Your task to perform on an android device: set the timer Image 0: 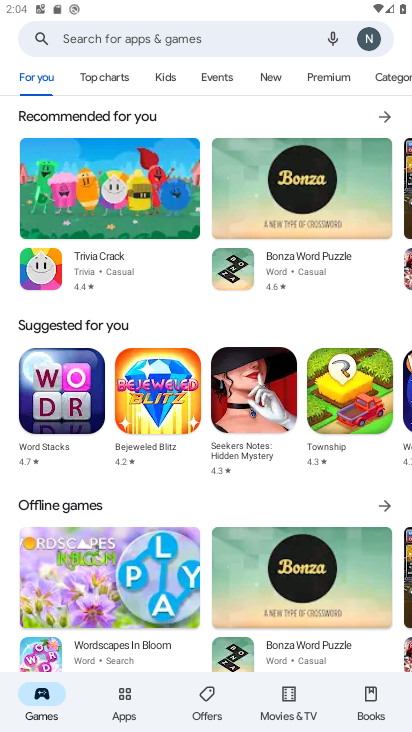
Step 0: press back button
Your task to perform on an android device: set the timer Image 1: 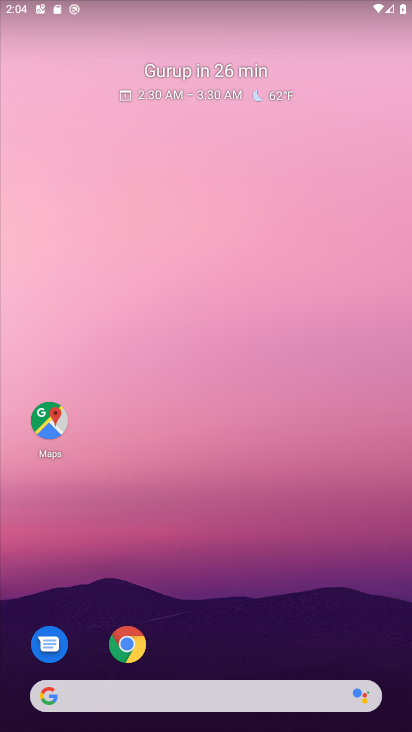
Step 1: drag from (238, 684) to (229, 216)
Your task to perform on an android device: set the timer Image 2: 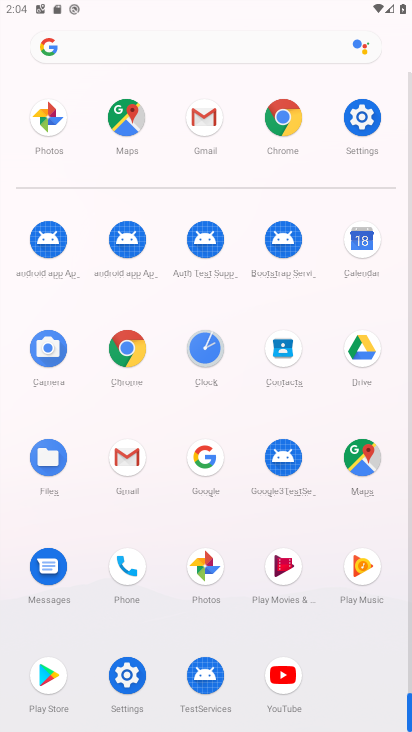
Step 2: click (204, 378)
Your task to perform on an android device: set the timer Image 3: 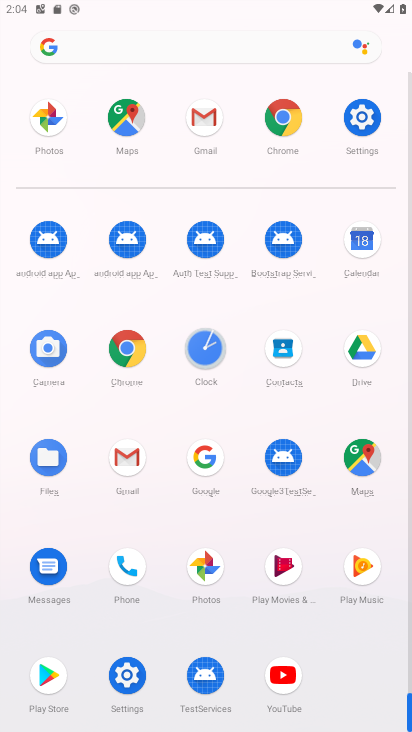
Step 3: click (199, 356)
Your task to perform on an android device: set the timer Image 4: 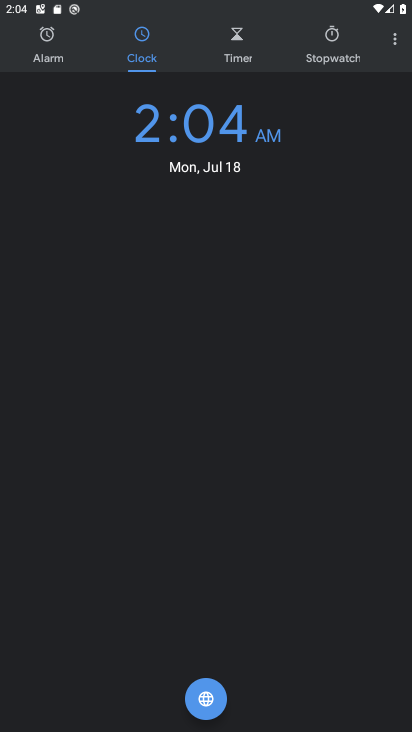
Step 4: click (231, 53)
Your task to perform on an android device: set the timer Image 5: 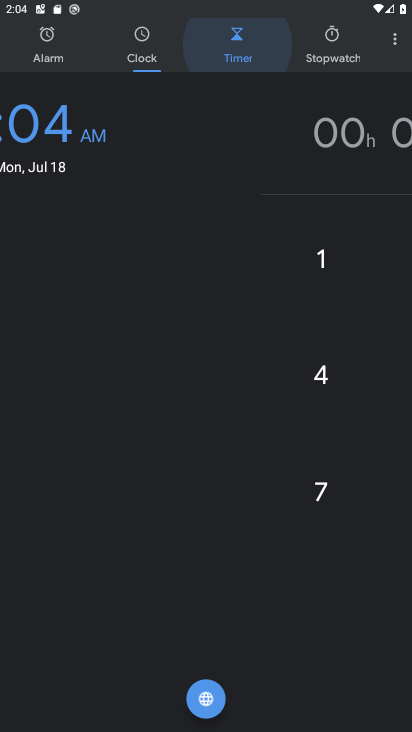
Step 5: click (233, 52)
Your task to perform on an android device: set the timer Image 6: 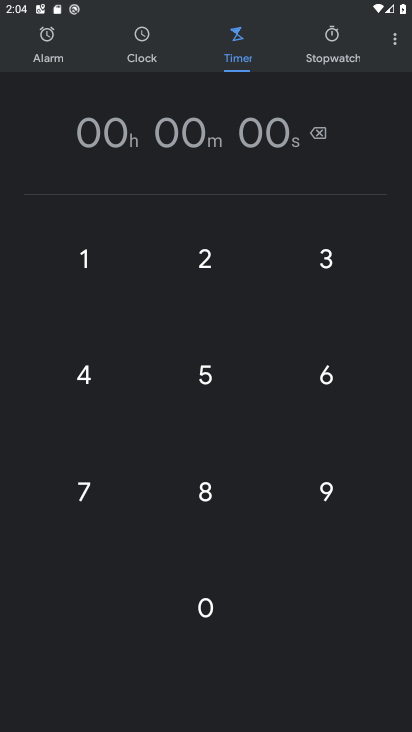
Step 6: click (234, 53)
Your task to perform on an android device: set the timer Image 7: 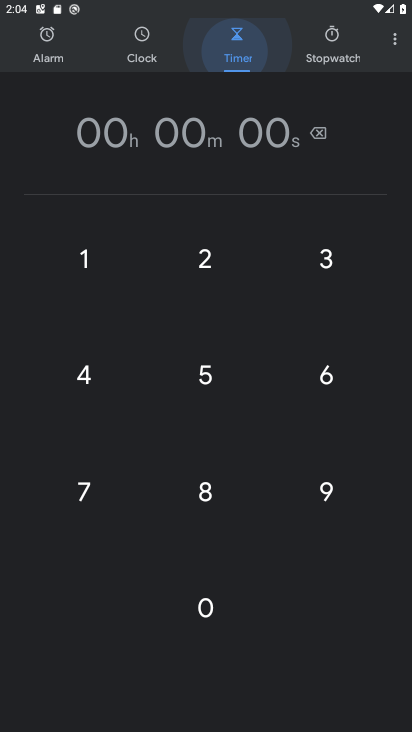
Step 7: click (235, 55)
Your task to perform on an android device: set the timer Image 8: 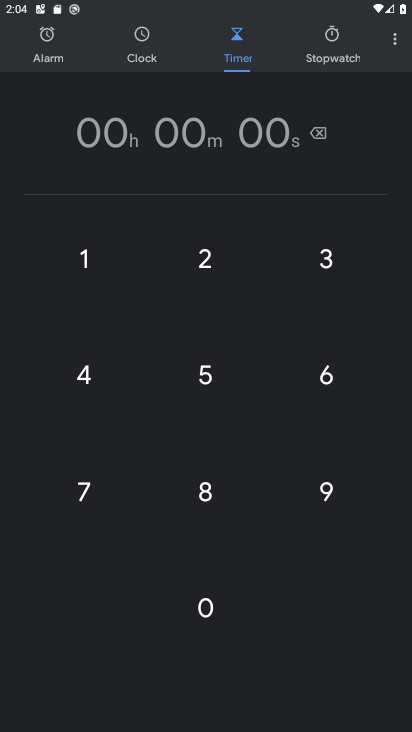
Step 8: click (209, 379)
Your task to perform on an android device: set the timer Image 9: 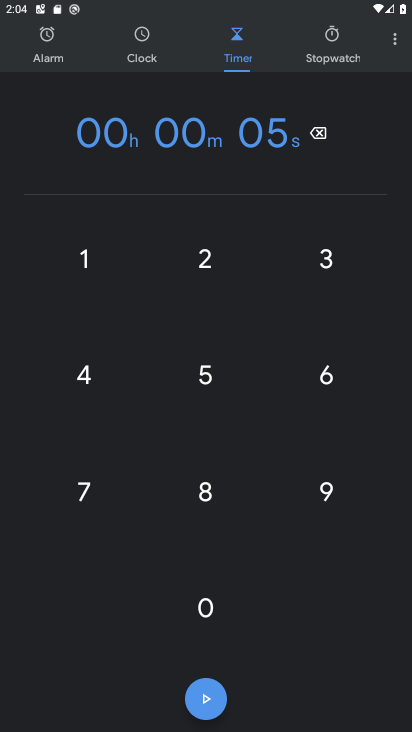
Step 9: click (205, 488)
Your task to perform on an android device: set the timer Image 10: 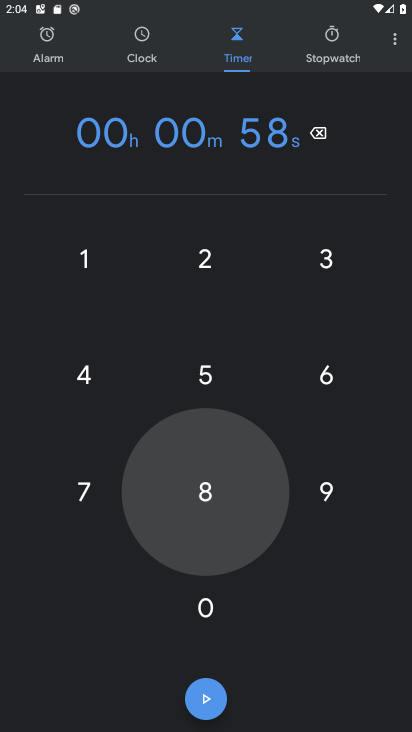
Step 10: click (203, 490)
Your task to perform on an android device: set the timer Image 11: 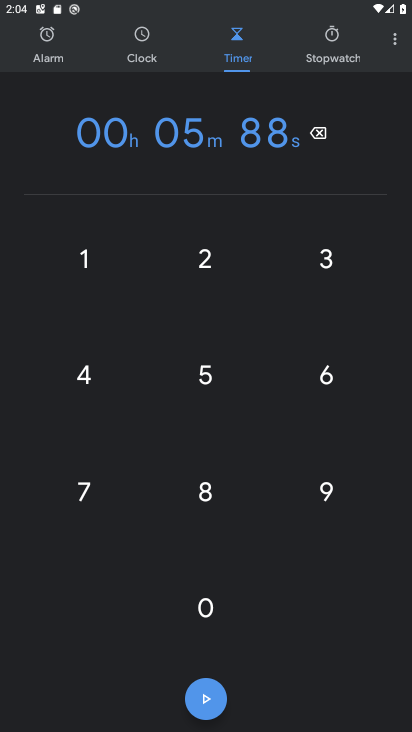
Step 11: click (201, 495)
Your task to perform on an android device: set the timer Image 12: 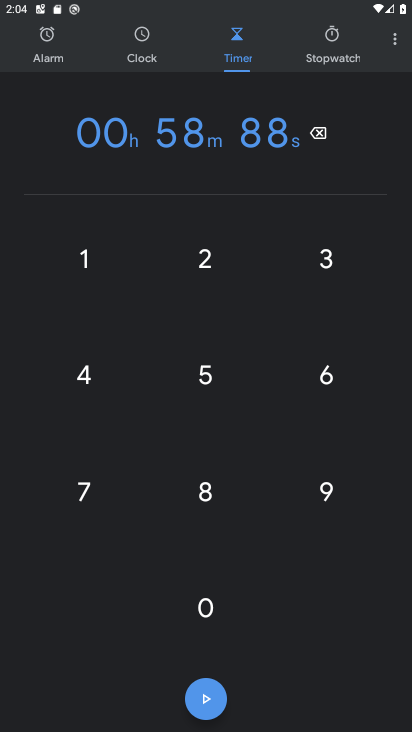
Step 12: click (206, 492)
Your task to perform on an android device: set the timer Image 13: 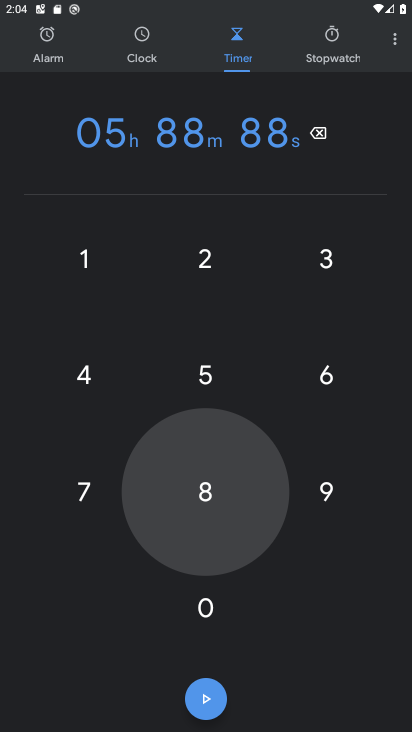
Step 13: click (207, 486)
Your task to perform on an android device: set the timer Image 14: 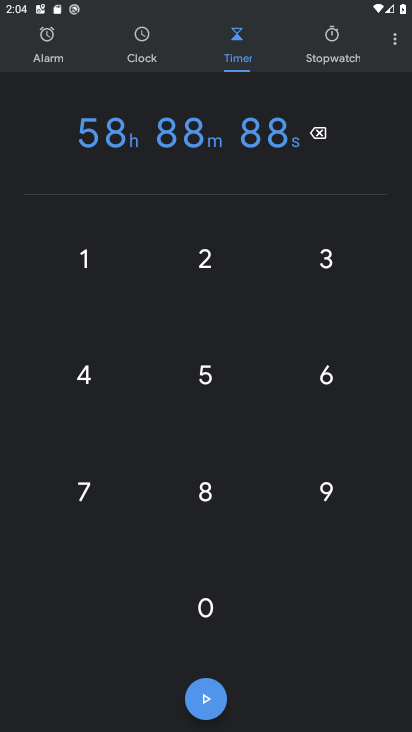
Step 14: click (207, 486)
Your task to perform on an android device: set the timer Image 15: 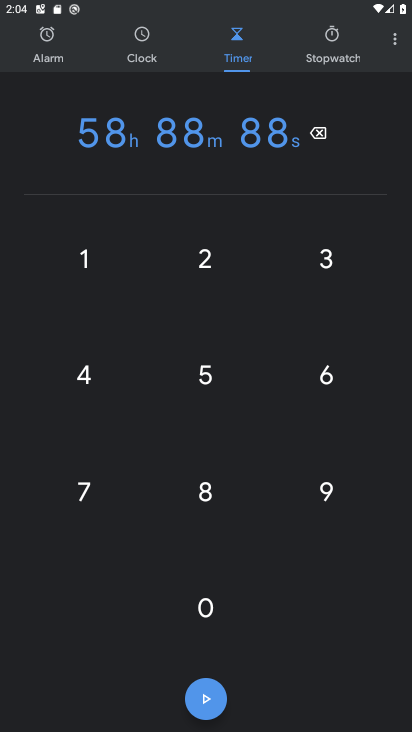
Step 15: click (208, 485)
Your task to perform on an android device: set the timer Image 16: 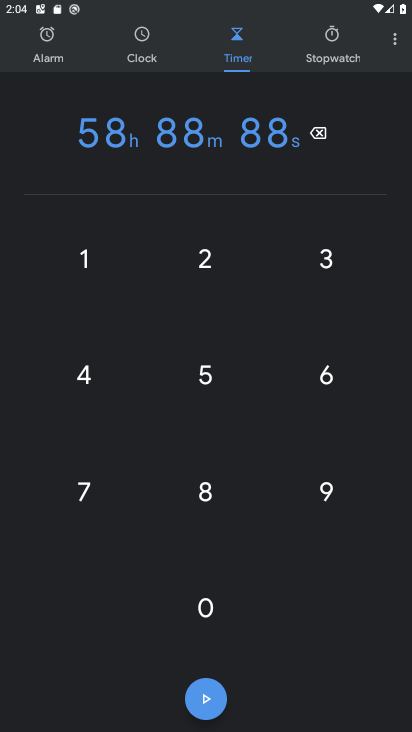
Step 16: click (198, 489)
Your task to perform on an android device: set the timer Image 17: 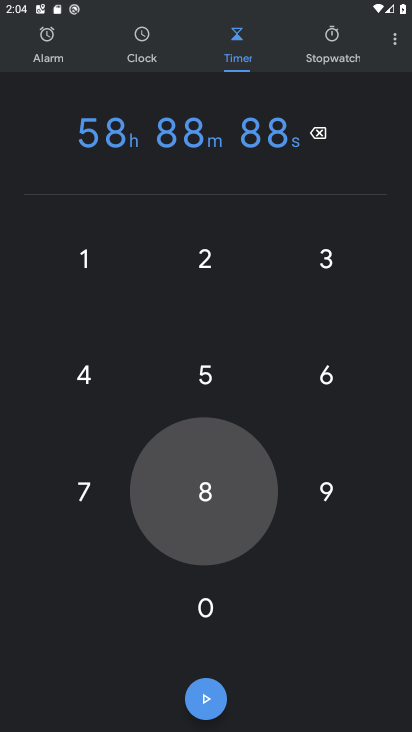
Step 17: click (199, 490)
Your task to perform on an android device: set the timer Image 18: 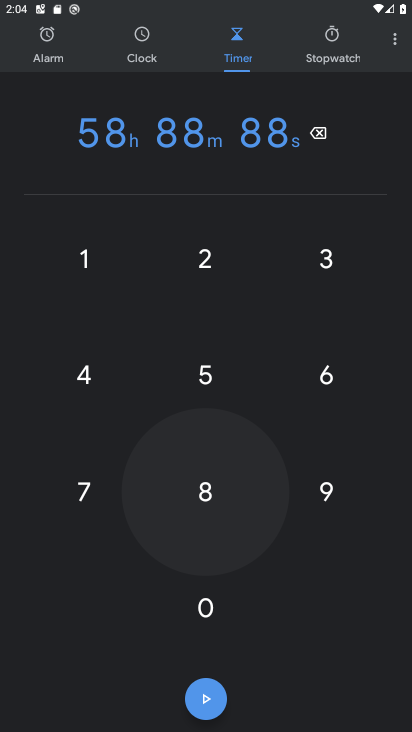
Step 18: click (200, 491)
Your task to perform on an android device: set the timer Image 19: 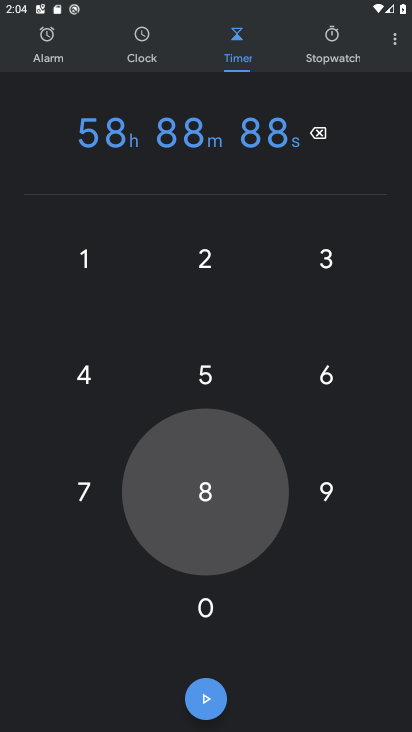
Step 19: click (200, 492)
Your task to perform on an android device: set the timer Image 20: 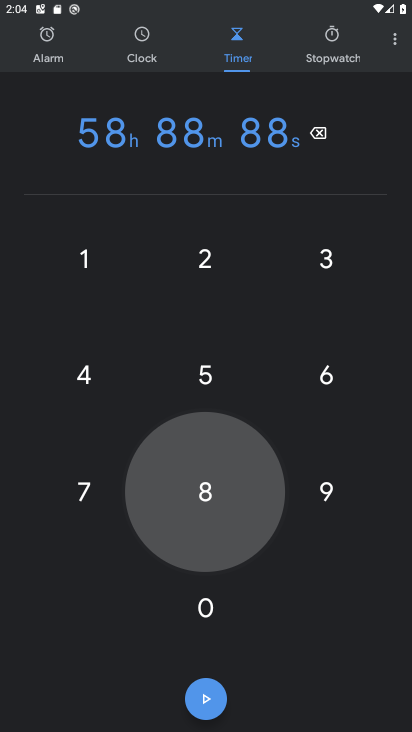
Step 20: click (200, 492)
Your task to perform on an android device: set the timer Image 21: 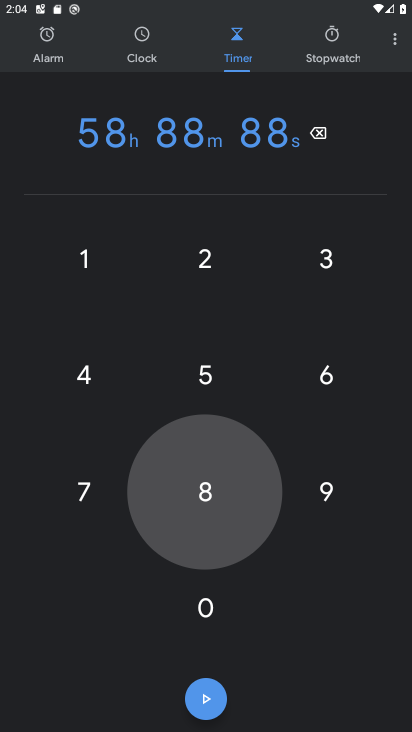
Step 21: click (193, 502)
Your task to perform on an android device: set the timer Image 22: 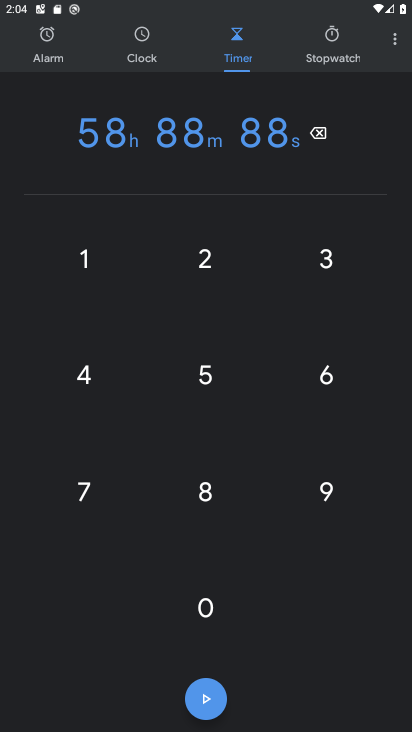
Step 22: click (200, 485)
Your task to perform on an android device: set the timer Image 23: 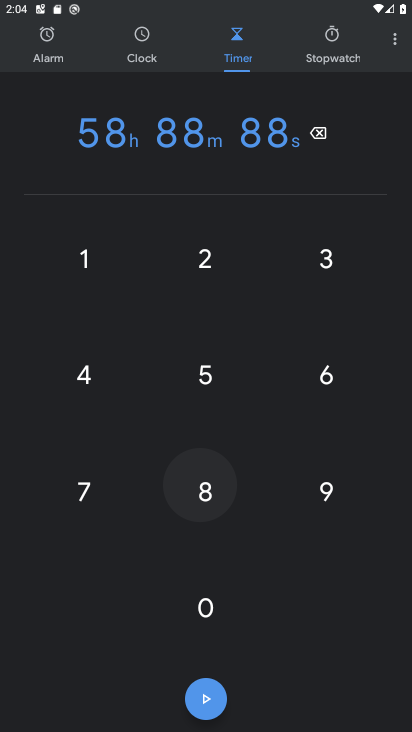
Step 23: click (200, 485)
Your task to perform on an android device: set the timer Image 24: 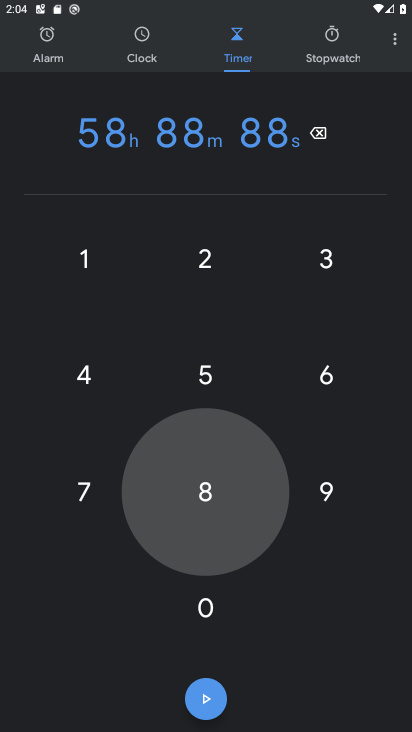
Step 24: click (200, 485)
Your task to perform on an android device: set the timer Image 25: 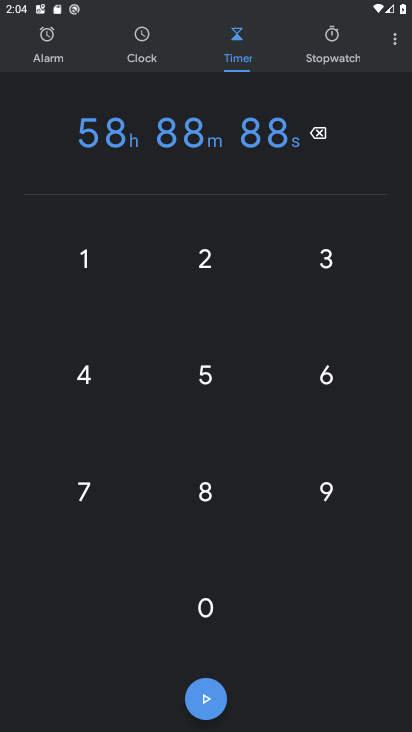
Step 25: click (200, 485)
Your task to perform on an android device: set the timer Image 26: 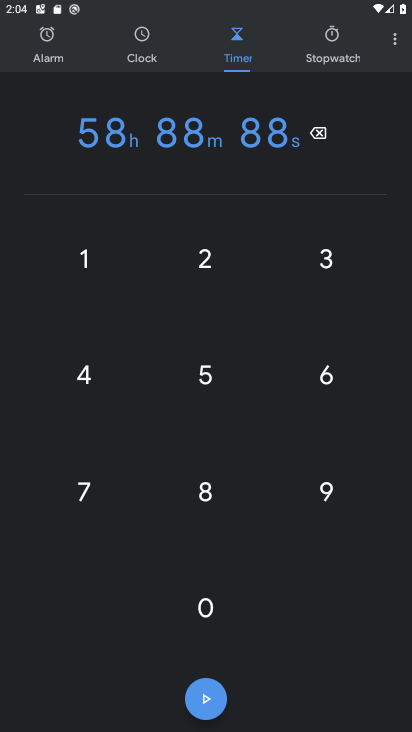
Step 26: click (196, 696)
Your task to perform on an android device: set the timer Image 27: 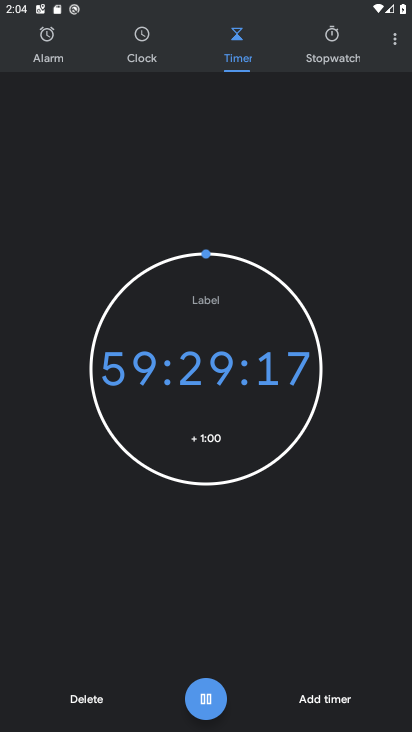
Step 27: click (196, 688)
Your task to perform on an android device: set the timer Image 28: 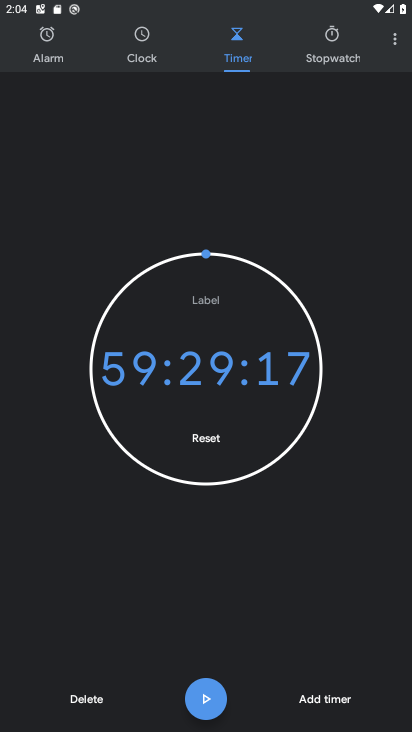
Step 28: task complete